Your task to perform on an android device: check storage Image 0: 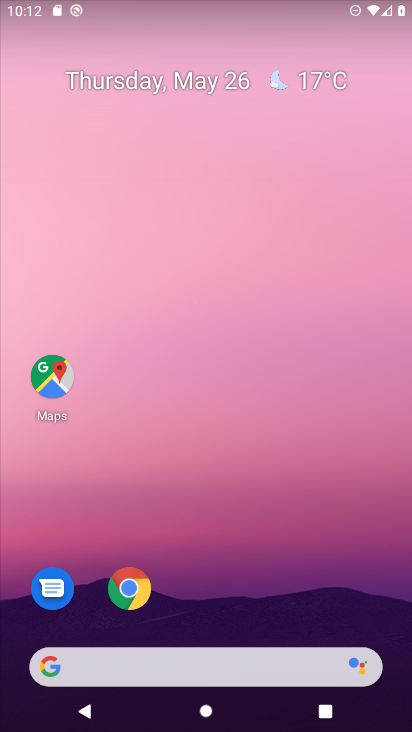
Step 0: drag from (388, 618) to (228, 0)
Your task to perform on an android device: check storage Image 1: 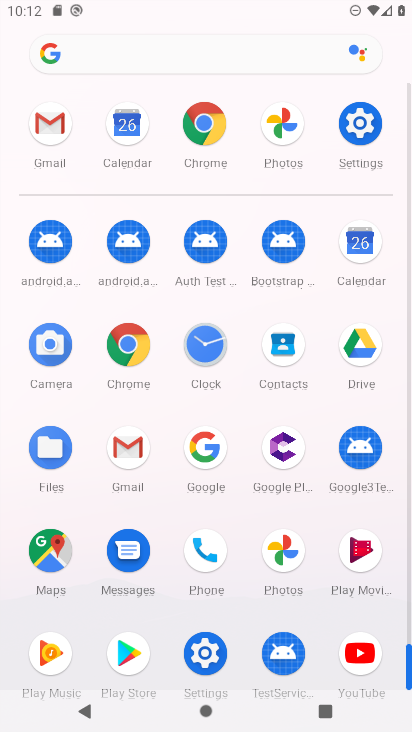
Step 1: click (205, 654)
Your task to perform on an android device: check storage Image 2: 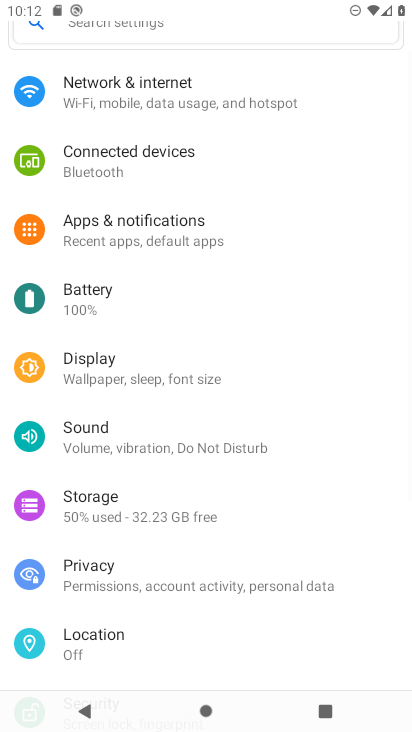
Step 2: drag from (305, 637) to (277, 216)
Your task to perform on an android device: check storage Image 3: 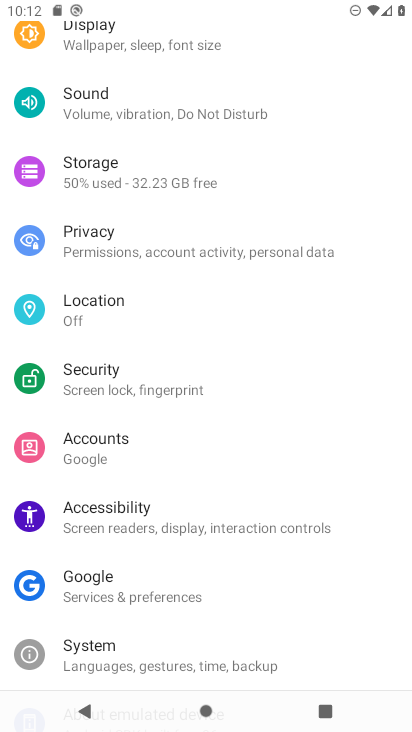
Step 3: click (91, 161)
Your task to perform on an android device: check storage Image 4: 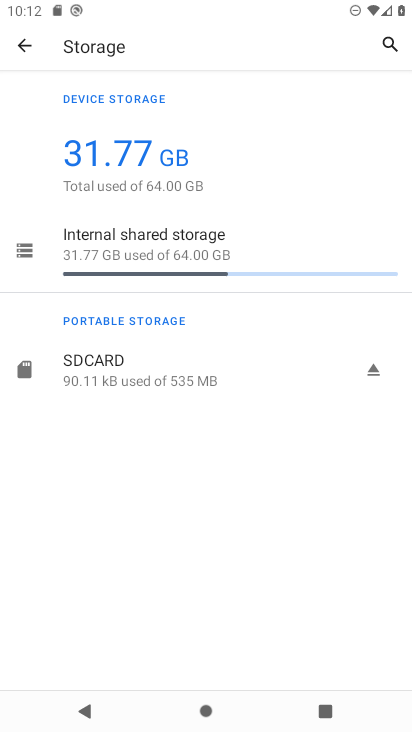
Step 4: task complete